Your task to perform on an android device: add a contact Image 0: 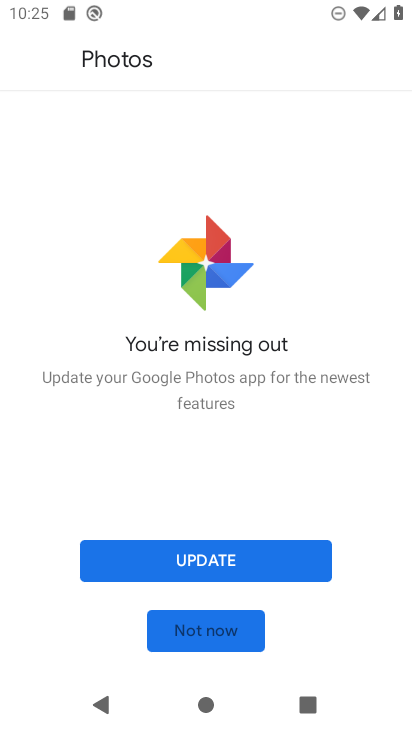
Step 0: press home button
Your task to perform on an android device: add a contact Image 1: 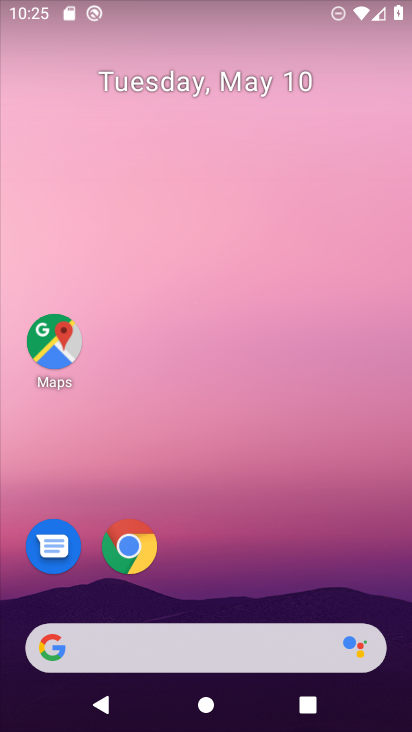
Step 1: drag from (300, 544) to (257, 177)
Your task to perform on an android device: add a contact Image 2: 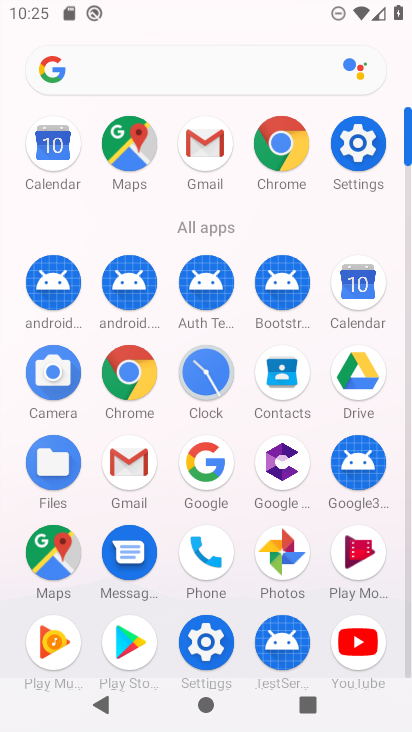
Step 2: click (282, 382)
Your task to perform on an android device: add a contact Image 3: 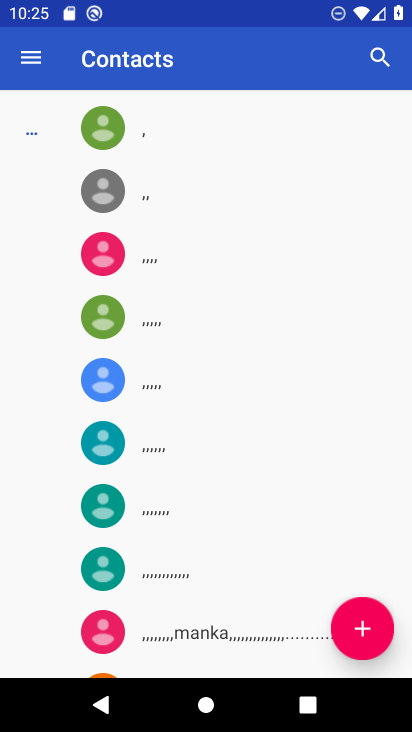
Step 3: click (362, 623)
Your task to perform on an android device: add a contact Image 4: 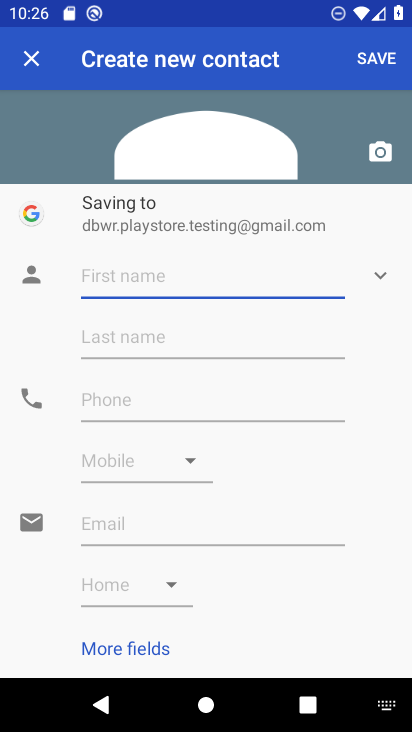
Step 4: type "jassi"
Your task to perform on an android device: add a contact Image 5: 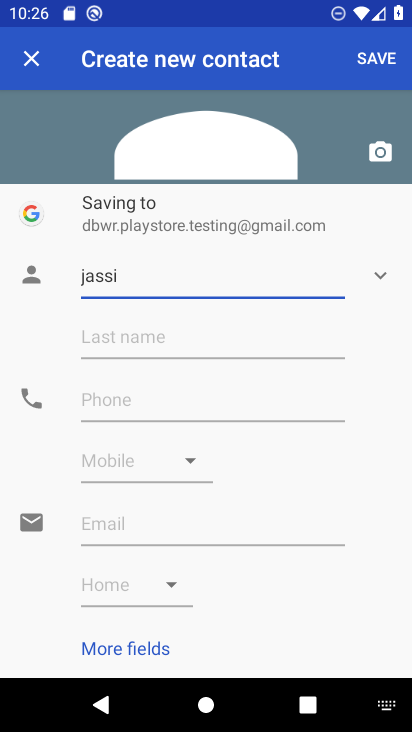
Step 5: click (380, 63)
Your task to perform on an android device: add a contact Image 6: 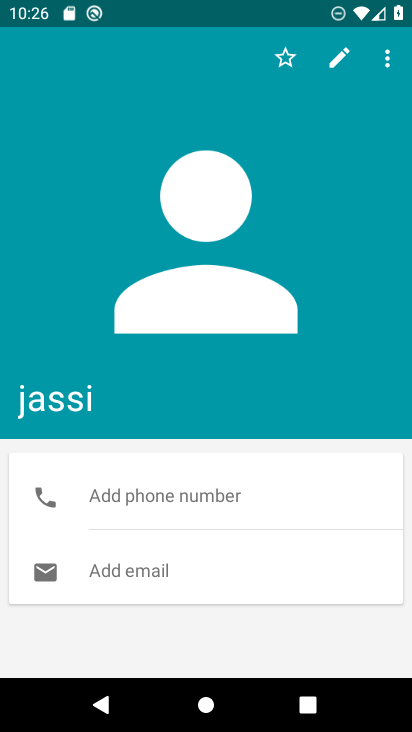
Step 6: task complete